Your task to perform on an android device: Go to Reddit.com Image 0: 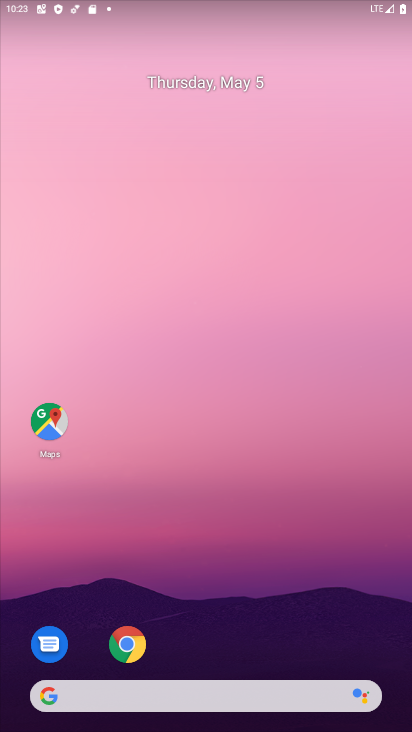
Step 0: click (118, 636)
Your task to perform on an android device: Go to Reddit.com Image 1: 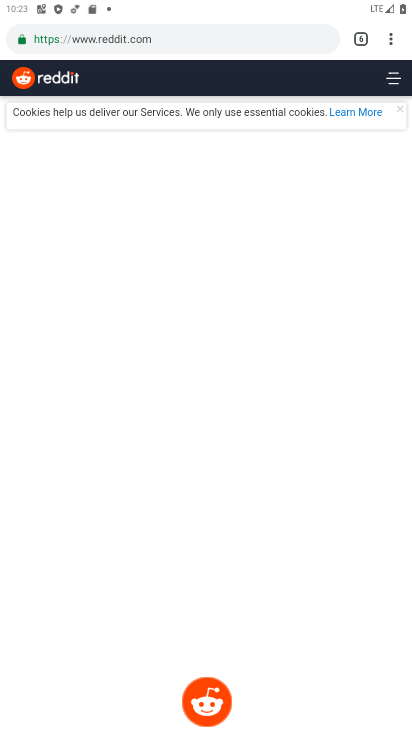
Step 1: task complete